Your task to perform on an android device: turn on improve location accuracy Image 0: 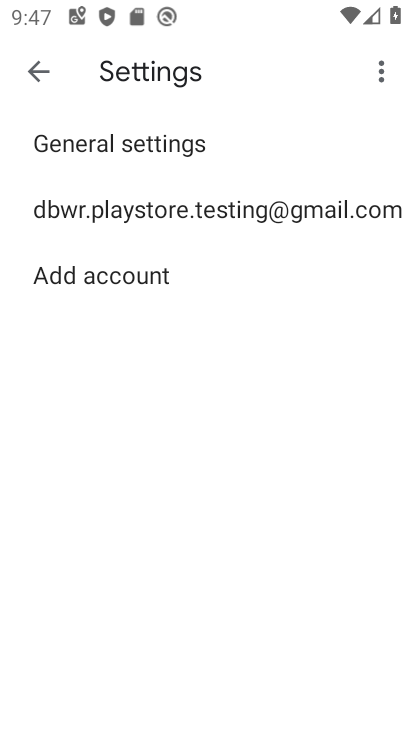
Step 0: press home button
Your task to perform on an android device: turn on improve location accuracy Image 1: 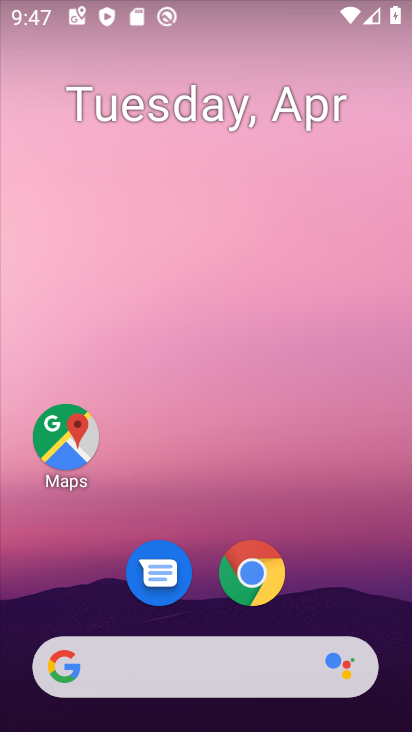
Step 1: drag from (201, 615) to (222, 235)
Your task to perform on an android device: turn on improve location accuracy Image 2: 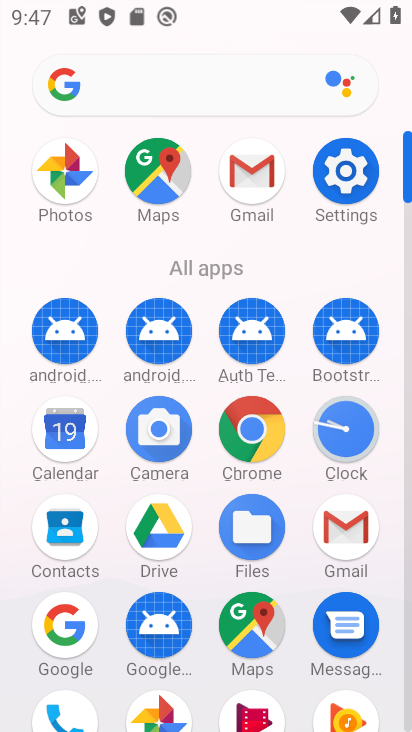
Step 2: click (342, 175)
Your task to perform on an android device: turn on improve location accuracy Image 3: 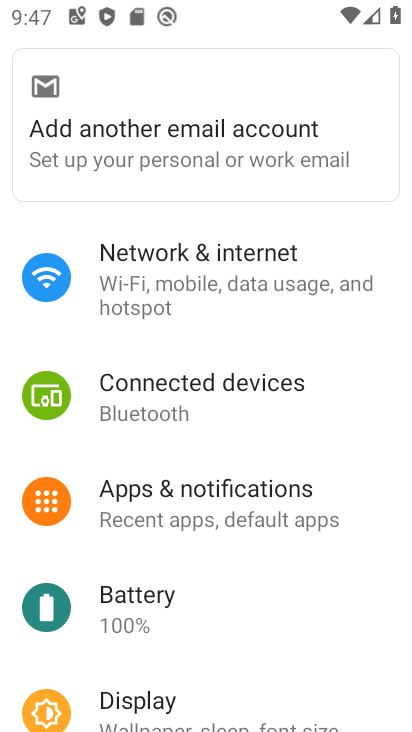
Step 3: drag from (218, 664) to (271, 304)
Your task to perform on an android device: turn on improve location accuracy Image 4: 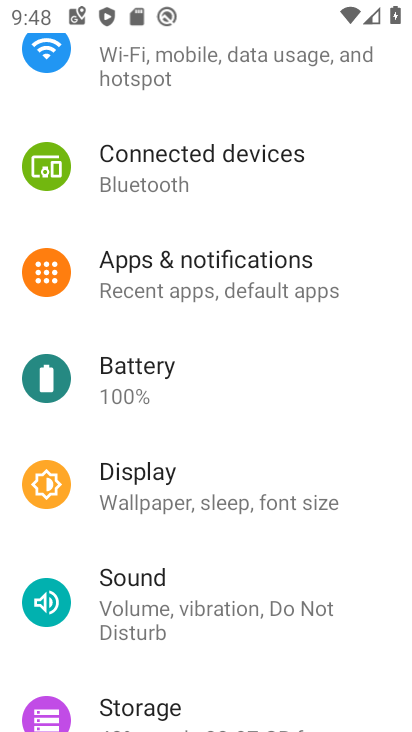
Step 4: drag from (223, 518) to (240, 260)
Your task to perform on an android device: turn on improve location accuracy Image 5: 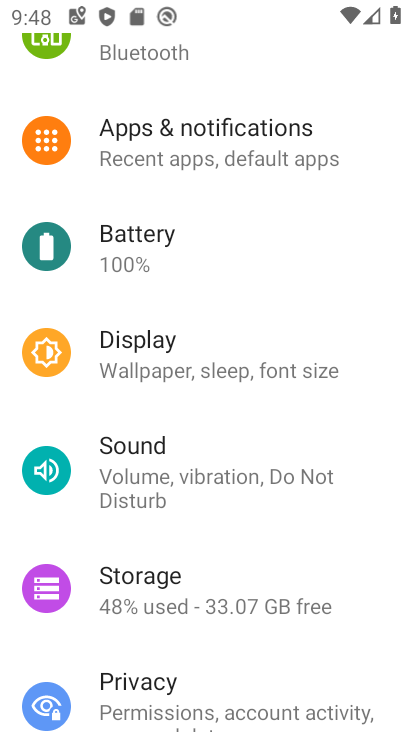
Step 5: drag from (224, 570) to (280, 298)
Your task to perform on an android device: turn on improve location accuracy Image 6: 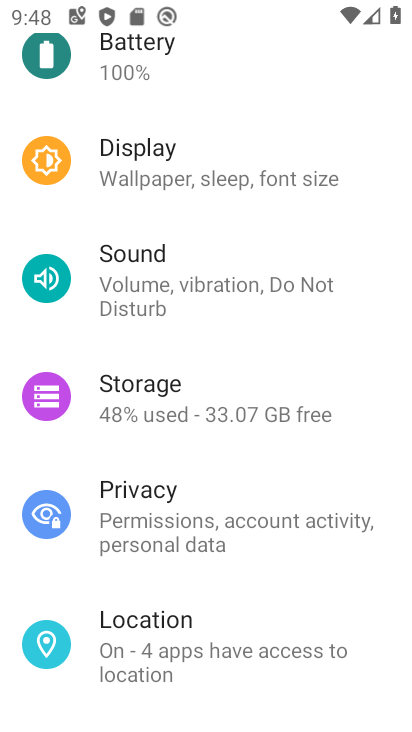
Step 6: click (164, 615)
Your task to perform on an android device: turn on improve location accuracy Image 7: 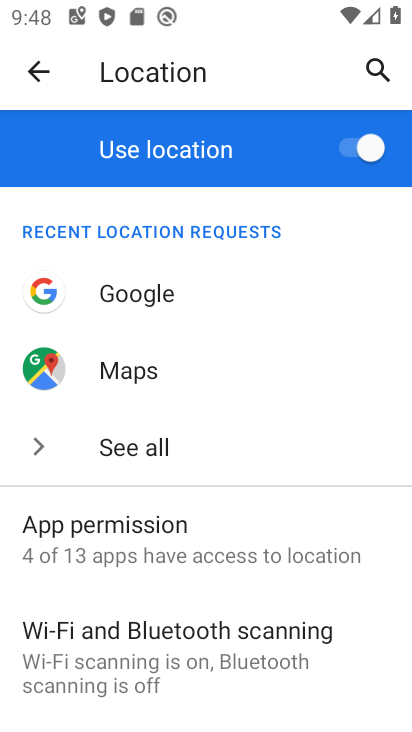
Step 7: drag from (229, 576) to (257, 389)
Your task to perform on an android device: turn on improve location accuracy Image 8: 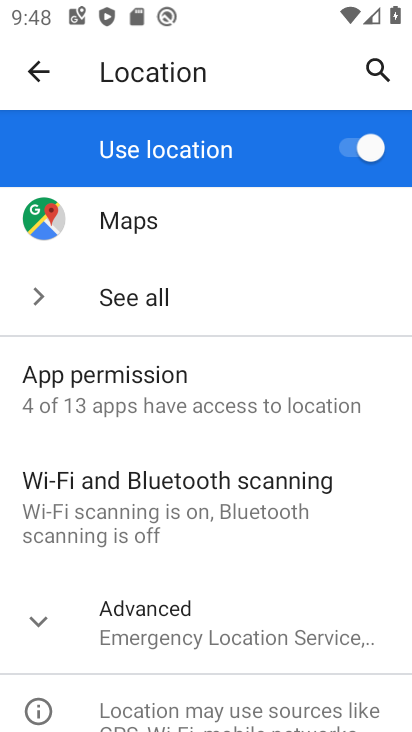
Step 8: drag from (287, 553) to (314, 383)
Your task to perform on an android device: turn on improve location accuracy Image 9: 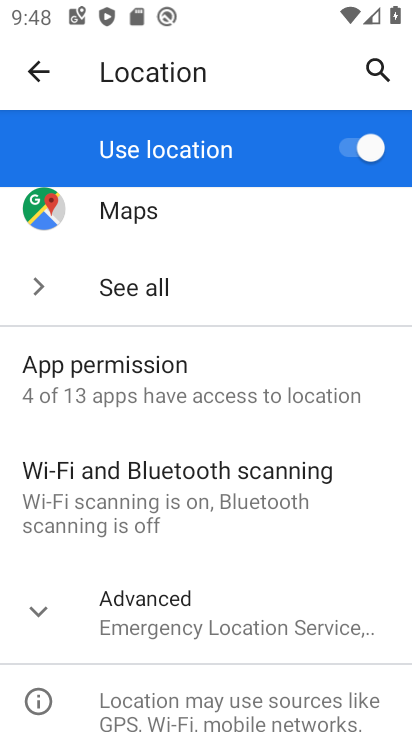
Step 9: click (183, 615)
Your task to perform on an android device: turn on improve location accuracy Image 10: 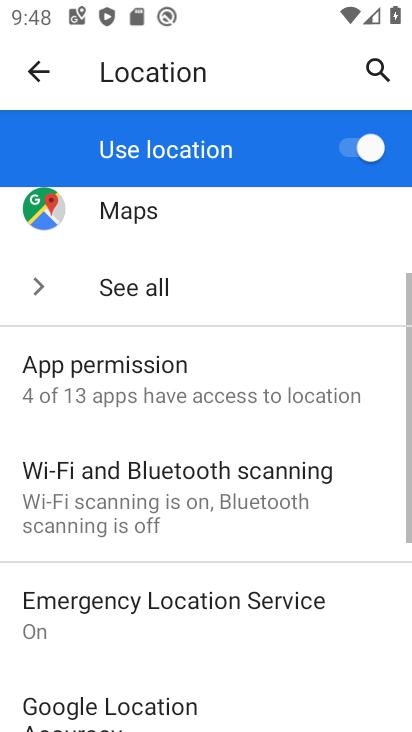
Step 10: drag from (220, 628) to (272, 336)
Your task to perform on an android device: turn on improve location accuracy Image 11: 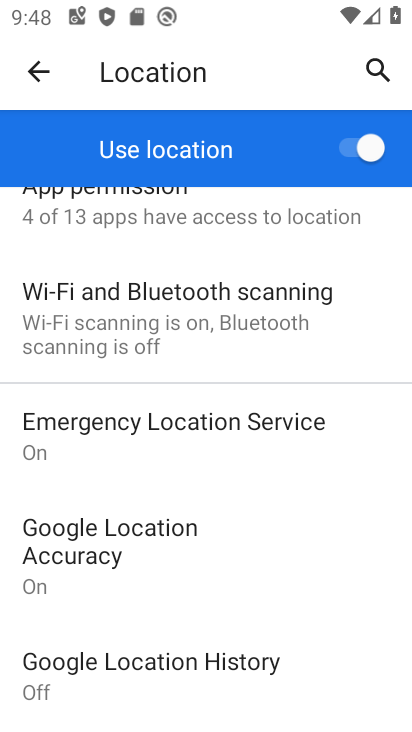
Step 11: drag from (233, 598) to (274, 358)
Your task to perform on an android device: turn on improve location accuracy Image 12: 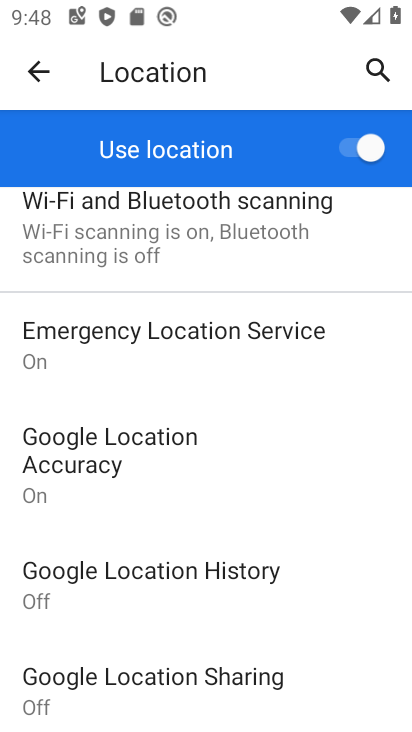
Step 12: click (186, 454)
Your task to perform on an android device: turn on improve location accuracy Image 13: 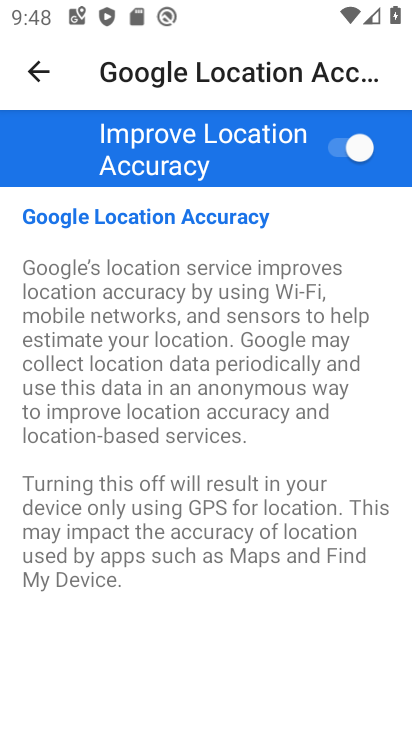
Step 13: task complete